Your task to perform on an android device: clear history in the chrome app Image 0: 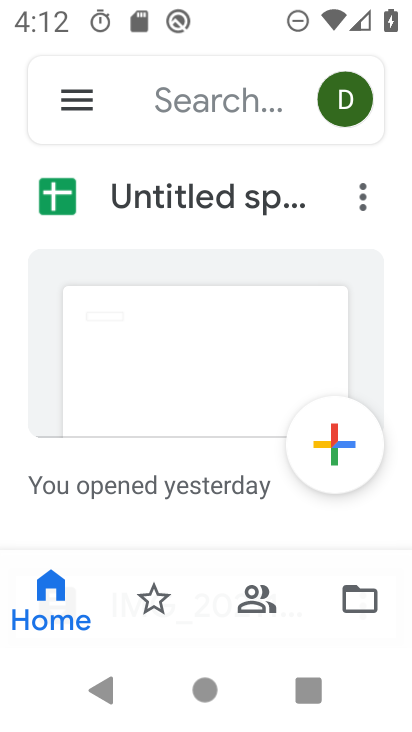
Step 0: press home button
Your task to perform on an android device: clear history in the chrome app Image 1: 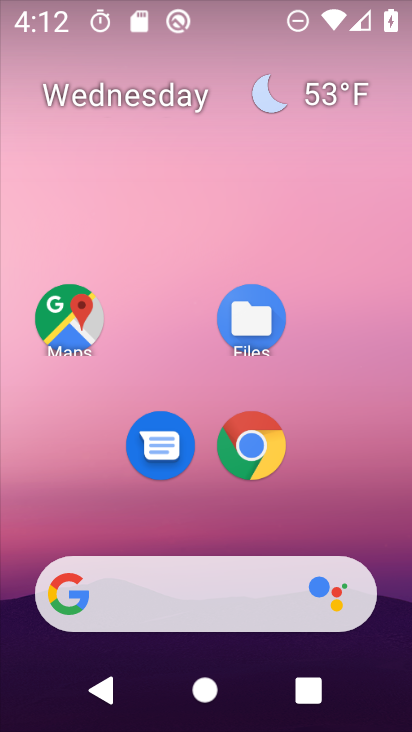
Step 1: click (244, 467)
Your task to perform on an android device: clear history in the chrome app Image 2: 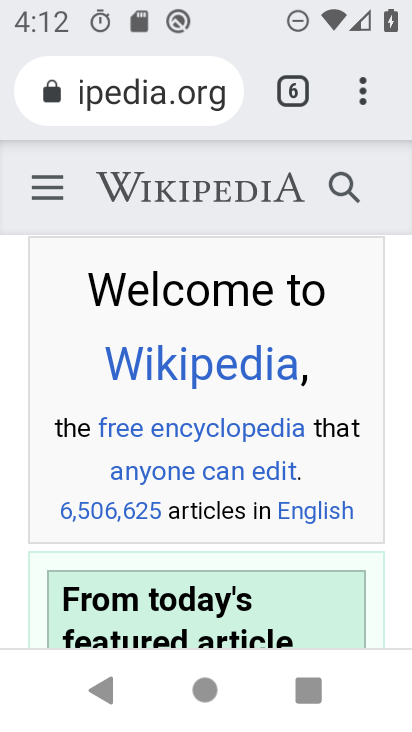
Step 2: click (357, 99)
Your task to perform on an android device: clear history in the chrome app Image 3: 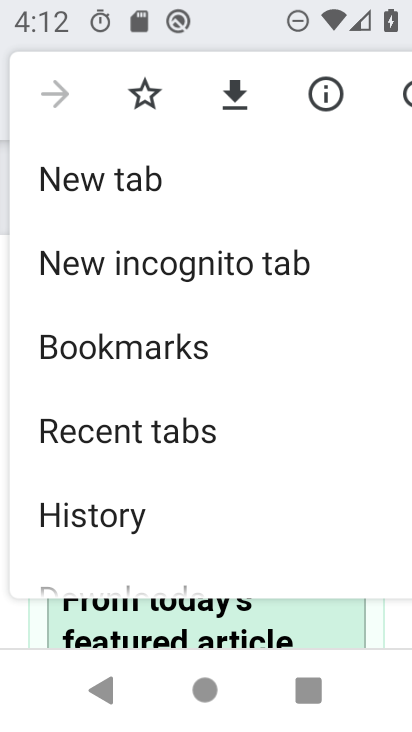
Step 3: click (147, 515)
Your task to perform on an android device: clear history in the chrome app Image 4: 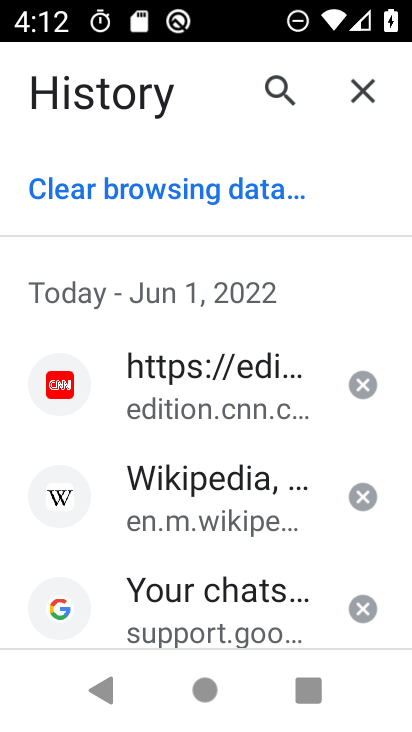
Step 4: drag from (158, 459) to (157, 4)
Your task to perform on an android device: clear history in the chrome app Image 5: 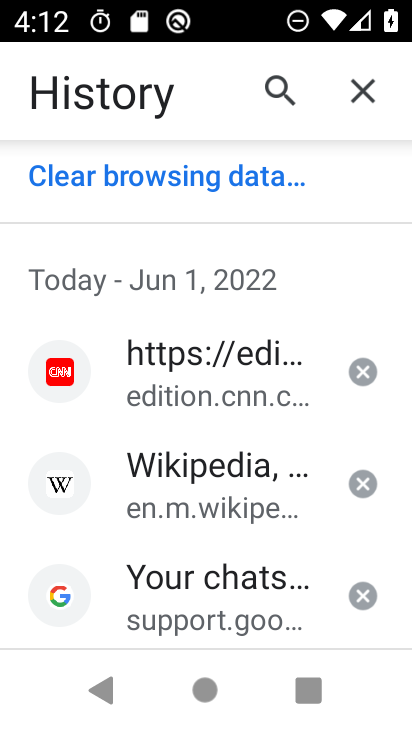
Step 5: click (152, 175)
Your task to perform on an android device: clear history in the chrome app Image 6: 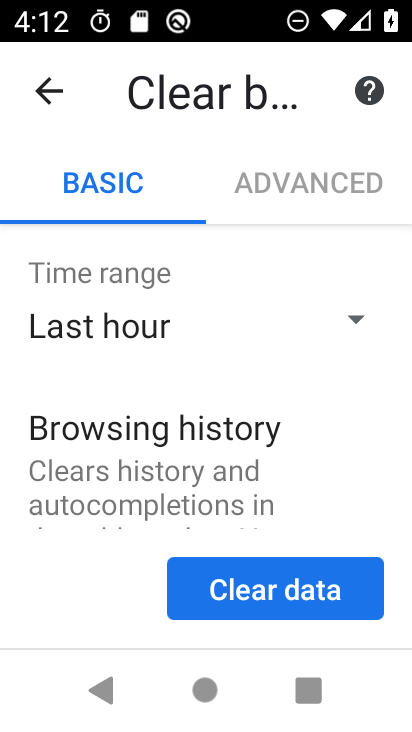
Step 6: click (259, 597)
Your task to perform on an android device: clear history in the chrome app Image 7: 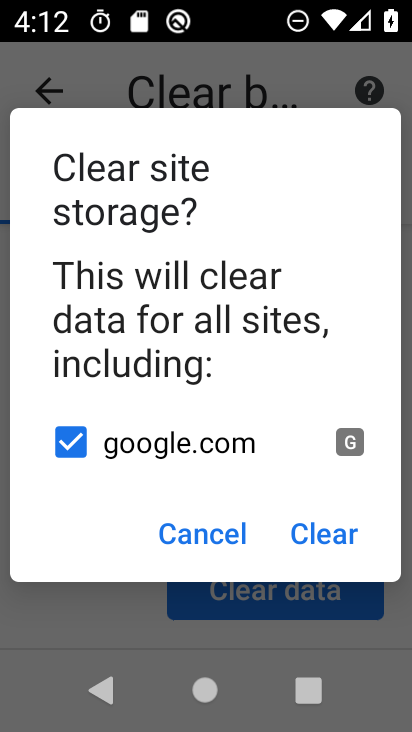
Step 7: click (328, 540)
Your task to perform on an android device: clear history in the chrome app Image 8: 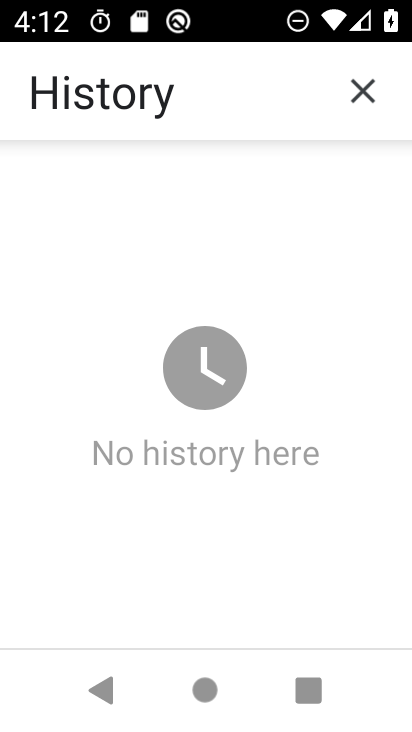
Step 8: task complete